Your task to perform on an android device: turn on the 24-hour format for clock Image 0: 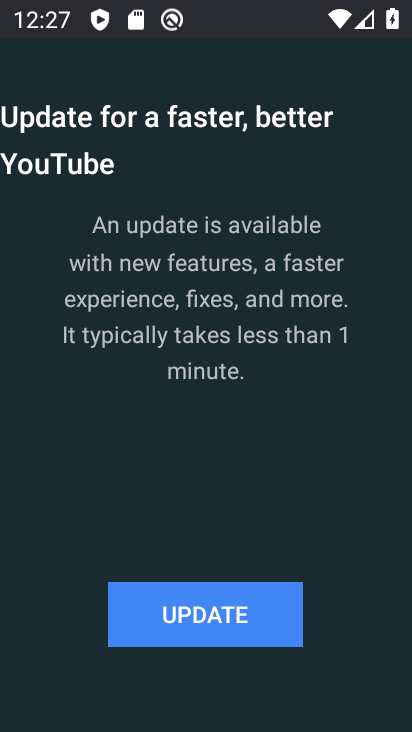
Step 0: press home button
Your task to perform on an android device: turn on the 24-hour format for clock Image 1: 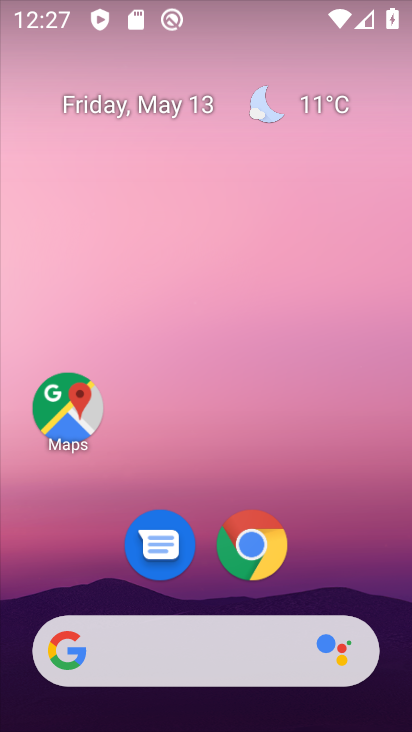
Step 1: drag from (328, 545) to (291, 169)
Your task to perform on an android device: turn on the 24-hour format for clock Image 2: 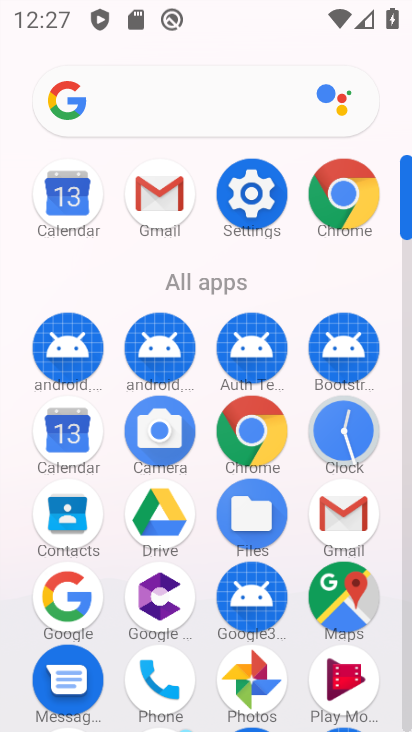
Step 2: click (357, 442)
Your task to perform on an android device: turn on the 24-hour format for clock Image 3: 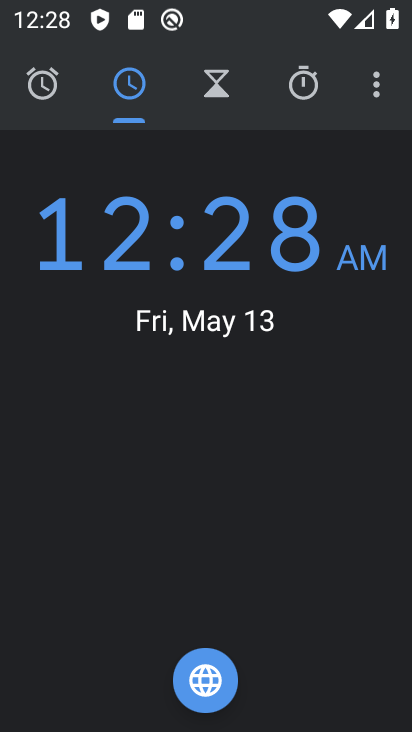
Step 3: click (374, 81)
Your task to perform on an android device: turn on the 24-hour format for clock Image 4: 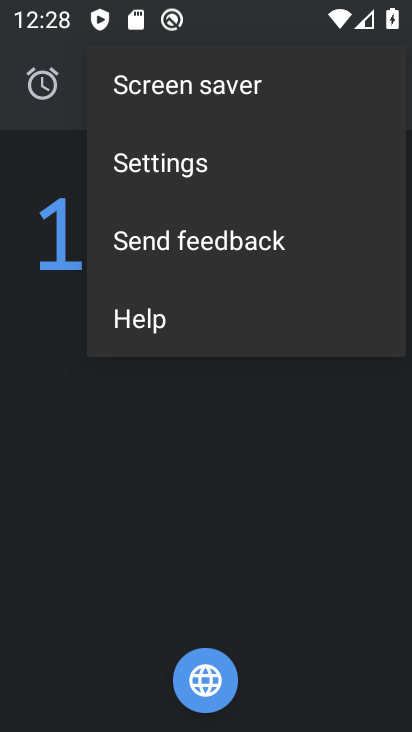
Step 4: click (188, 174)
Your task to perform on an android device: turn on the 24-hour format for clock Image 5: 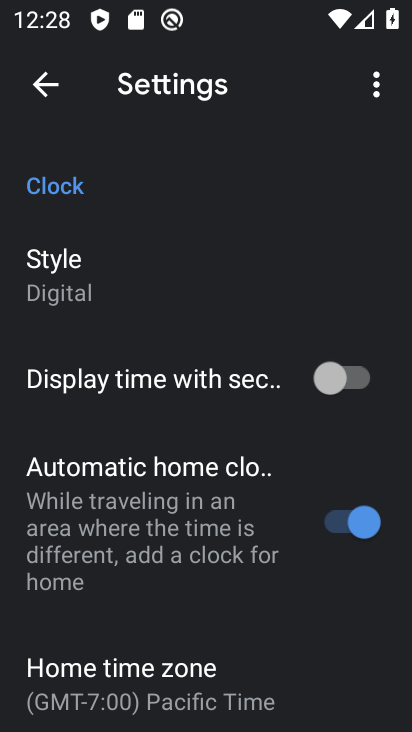
Step 5: drag from (171, 638) to (196, 256)
Your task to perform on an android device: turn on the 24-hour format for clock Image 6: 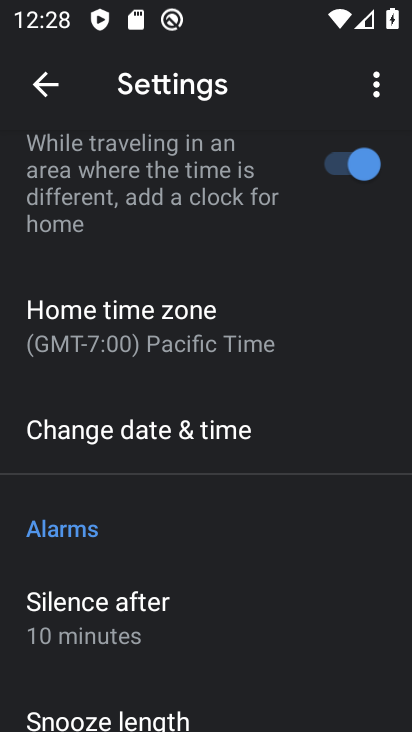
Step 6: drag from (208, 628) to (228, 438)
Your task to perform on an android device: turn on the 24-hour format for clock Image 7: 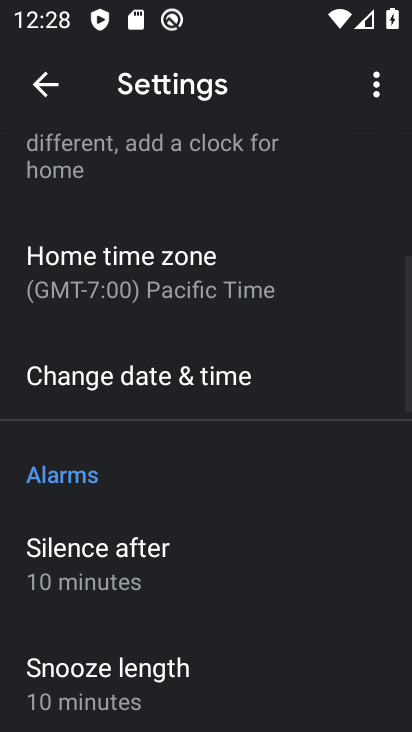
Step 7: click (210, 391)
Your task to perform on an android device: turn on the 24-hour format for clock Image 8: 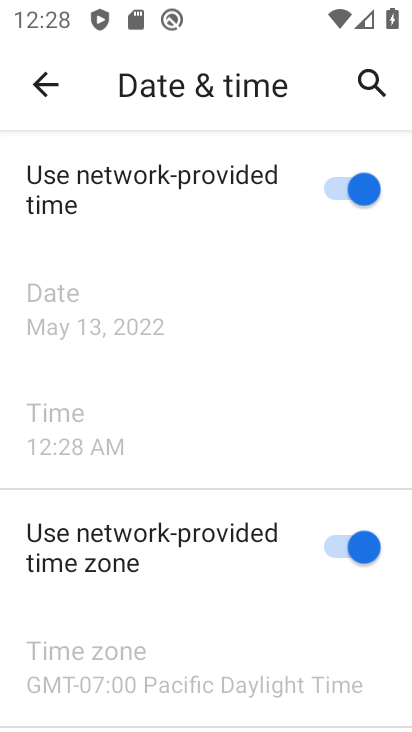
Step 8: drag from (259, 541) to (259, 245)
Your task to perform on an android device: turn on the 24-hour format for clock Image 9: 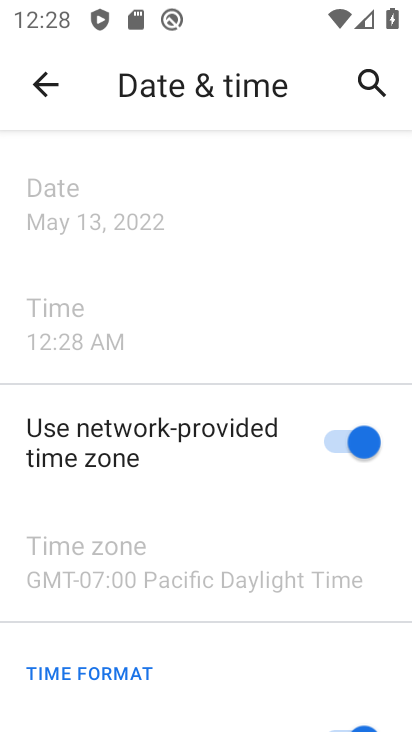
Step 9: drag from (237, 578) to (254, 225)
Your task to perform on an android device: turn on the 24-hour format for clock Image 10: 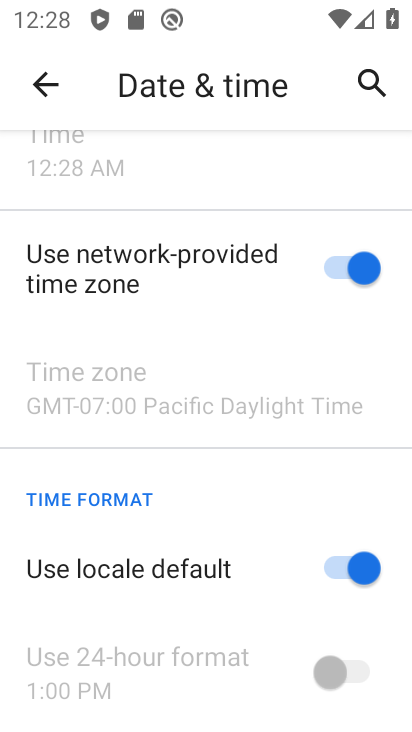
Step 10: drag from (214, 591) to (214, 376)
Your task to perform on an android device: turn on the 24-hour format for clock Image 11: 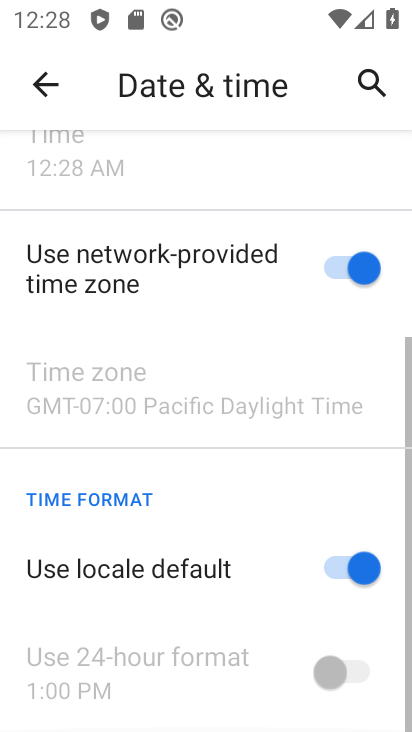
Step 11: click (342, 555)
Your task to perform on an android device: turn on the 24-hour format for clock Image 12: 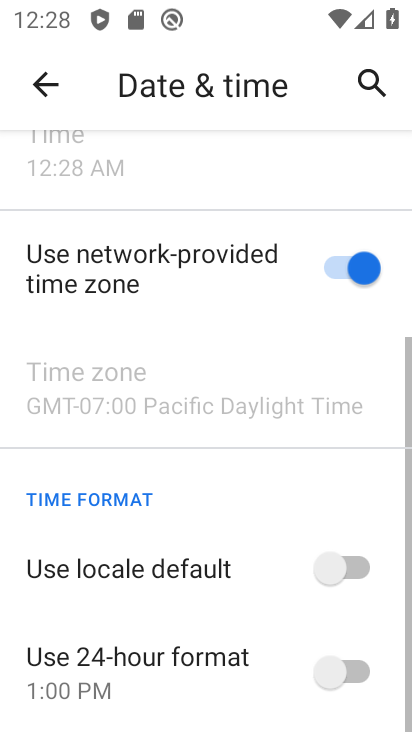
Step 12: click (343, 676)
Your task to perform on an android device: turn on the 24-hour format for clock Image 13: 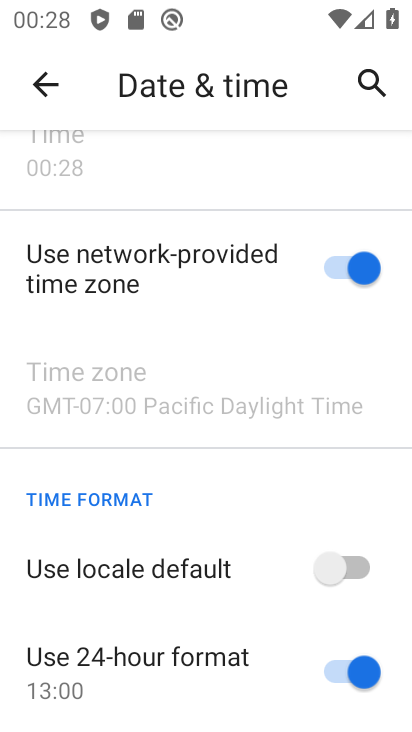
Step 13: task complete